Your task to perform on an android device: turn smart compose on in the gmail app Image 0: 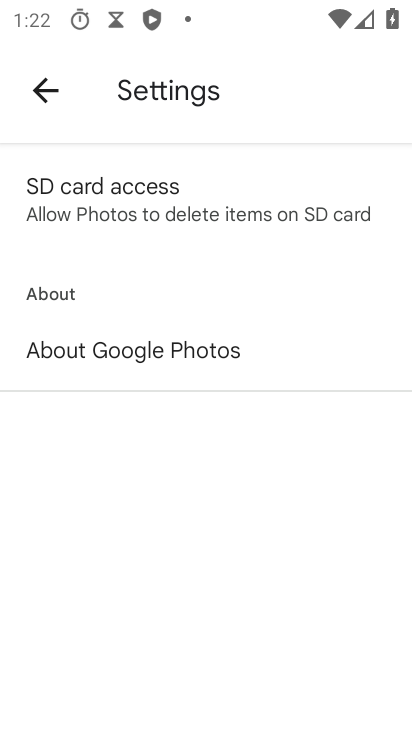
Step 0: press home button
Your task to perform on an android device: turn smart compose on in the gmail app Image 1: 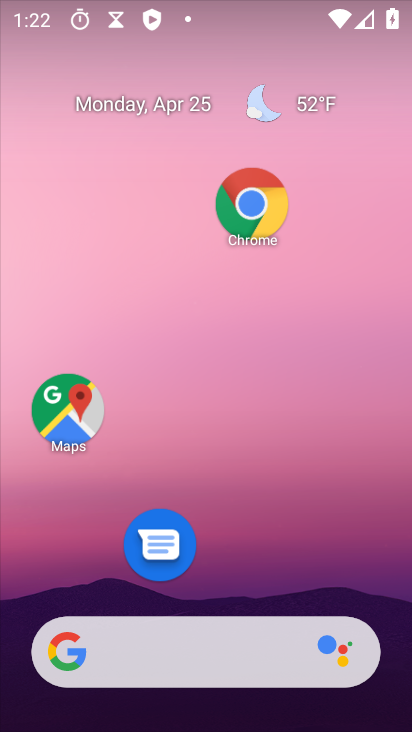
Step 1: drag from (302, 684) to (338, 284)
Your task to perform on an android device: turn smart compose on in the gmail app Image 2: 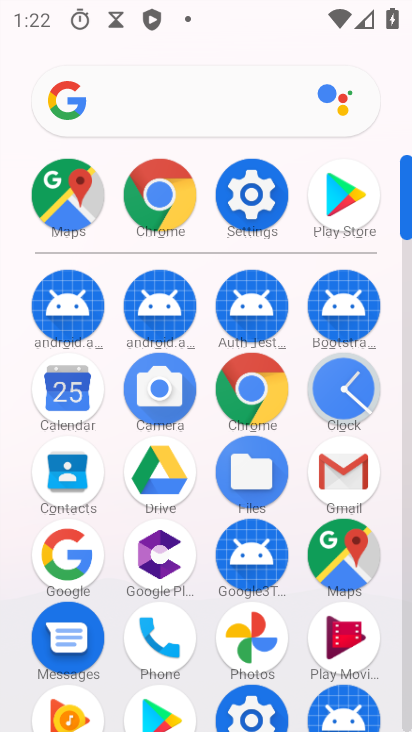
Step 2: click (346, 473)
Your task to perform on an android device: turn smart compose on in the gmail app Image 3: 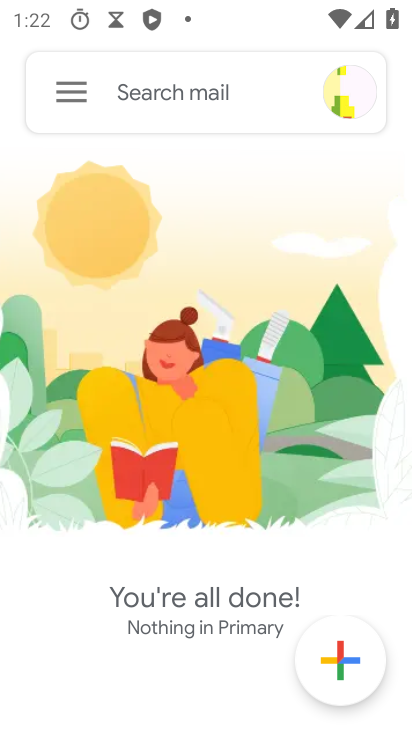
Step 3: click (67, 102)
Your task to perform on an android device: turn smart compose on in the gmail app Image 4: 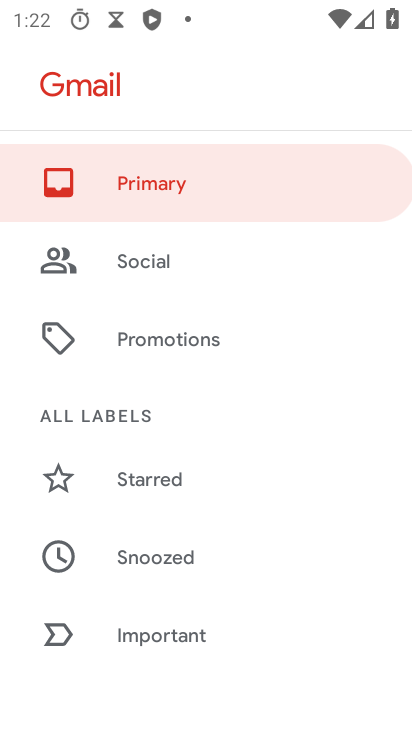
Step 4: drag from (81, 587) to (280, 256)
Your task to perform on an android device: turn smart compose on in the gmail app Image 5: 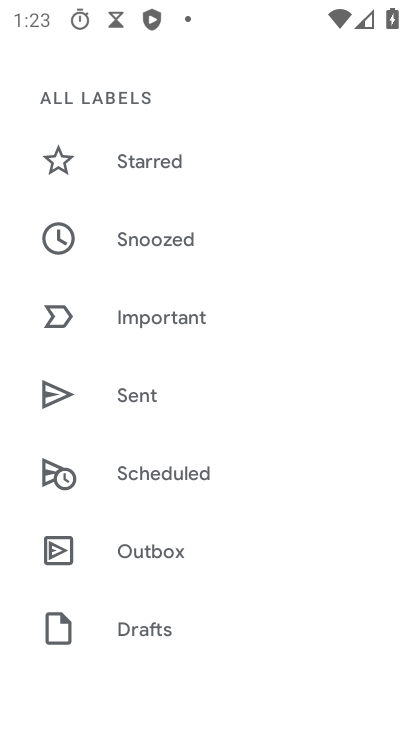
Step 5: drag from (193, 588) to (376, 254)
Your task to perform on an android device: turn smart compose on in the gmail app Image 6: 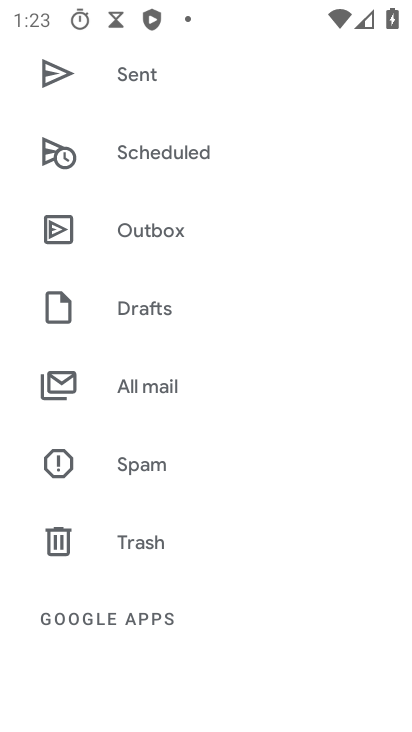
Step 6: drag from (214, 580) to (366, 337)
Your task to perform on an android device: turn smart compose on in the gmail app Image 7: 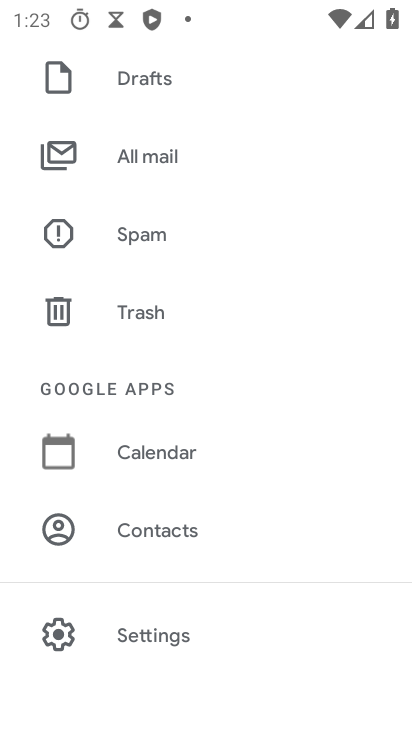
Step 7: click (196, 635)
Your task to perform on an android device: turn smart compose on in the gmail app Image 8: 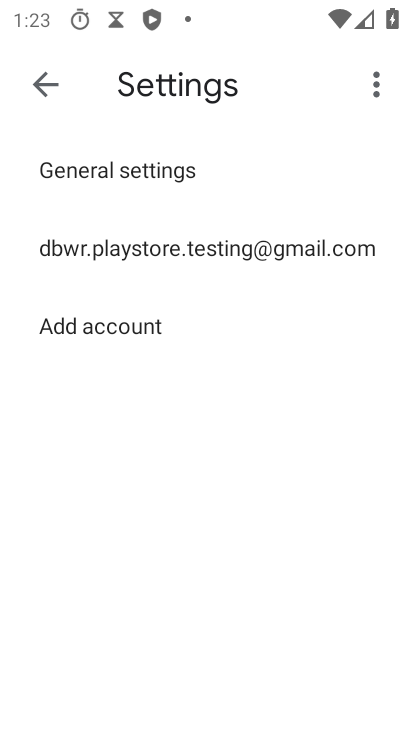
Step 8: click (193, 266)
Your task to perform on an android device: turn smart compose on in the gmail app Image 9: 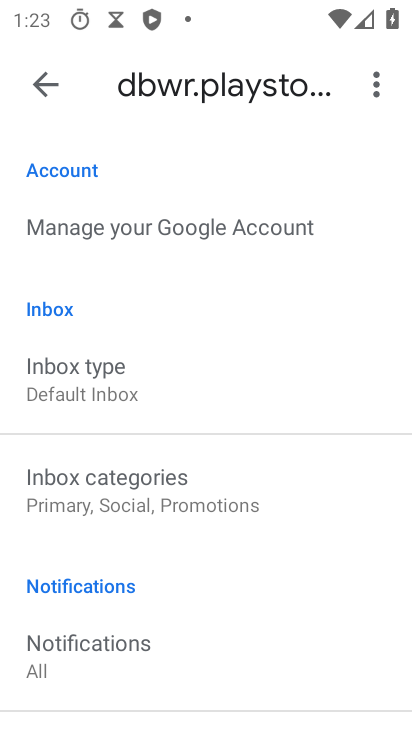
Step 9: drag from (170, 521) to (250, 143)
Your task to perform on an android device: turn smart compose on in the gmail app Image 10: 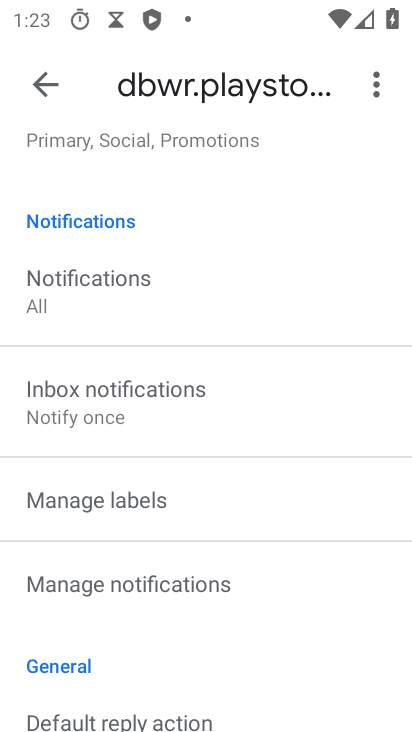
Step 10: drag from (186, 602) to (359, 227)
Your task to perform on an android device: turn smart compose on in the gmail app Image 11: 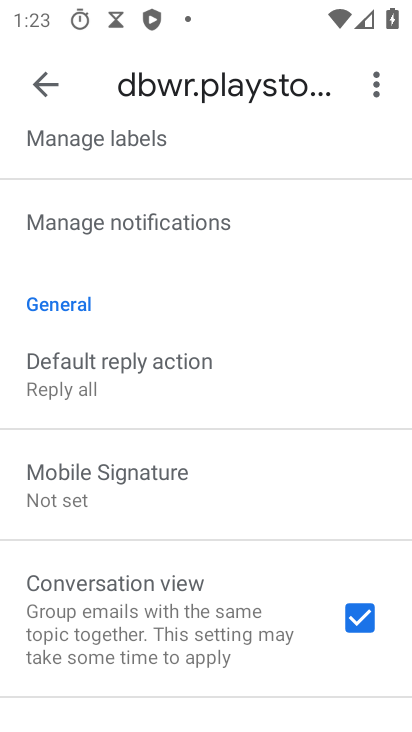
Step 11: drag from (264, 500) to (327, 295)
Your task to perform on an android device: turn smart compose on in the gmail app Image 12: 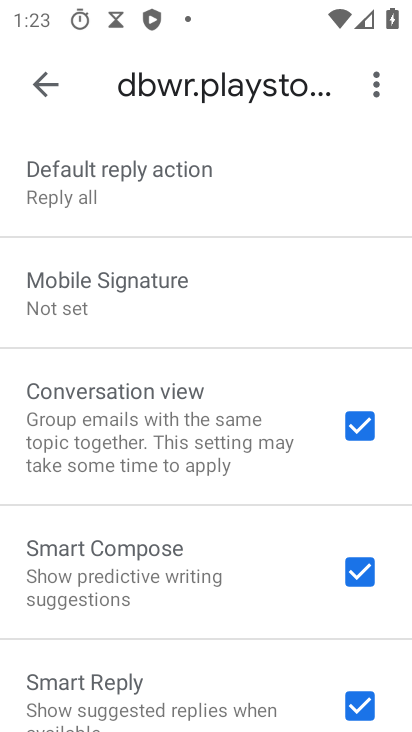
Step 12: click (349, 576)
Your task to perform on an android device: turn smart compose on in the gmail app Image 13: 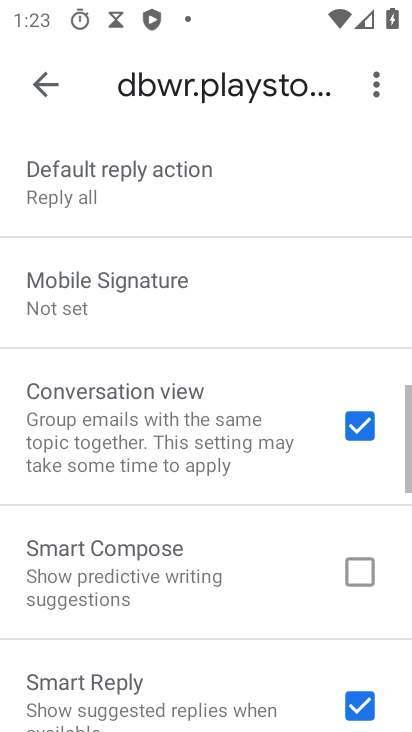
Step 13: click (350, 572)
Your task to perform on an android device: turn smart compose on in the gmail app Image 14: 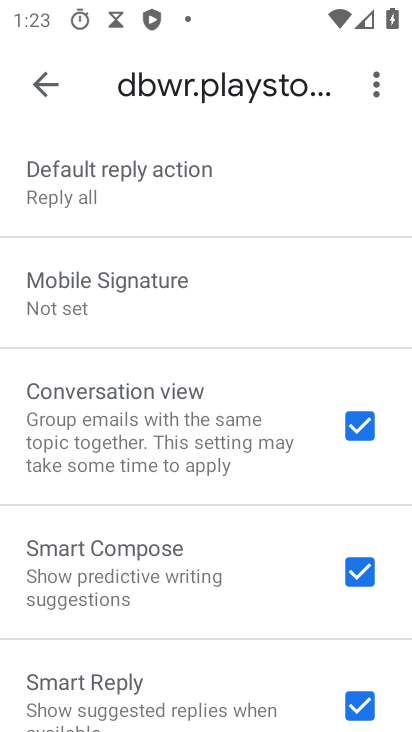
Step 14: task complete